Your task to perform on an android device: open wifi settings Image 0: 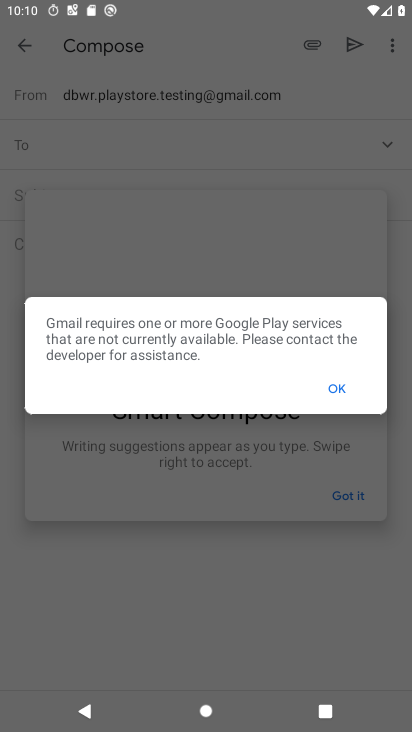
Step 0: press home button
Your task to perform on an android device: open wifi settings Image 1: 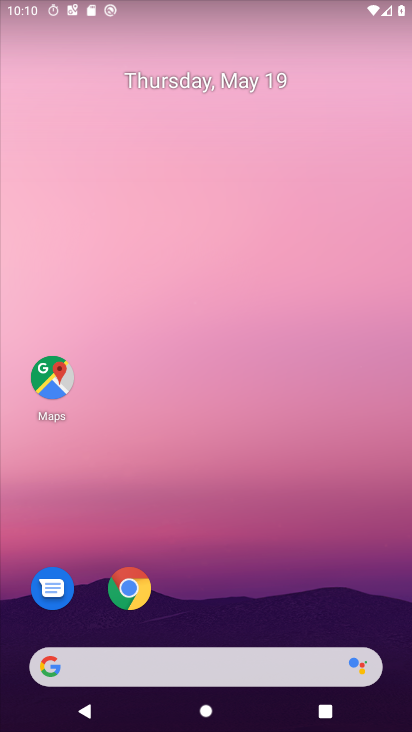
Step 1: drag from (119, 665) to (286, 74)
Your task to perform on an android device: open wifi settings Image 2: 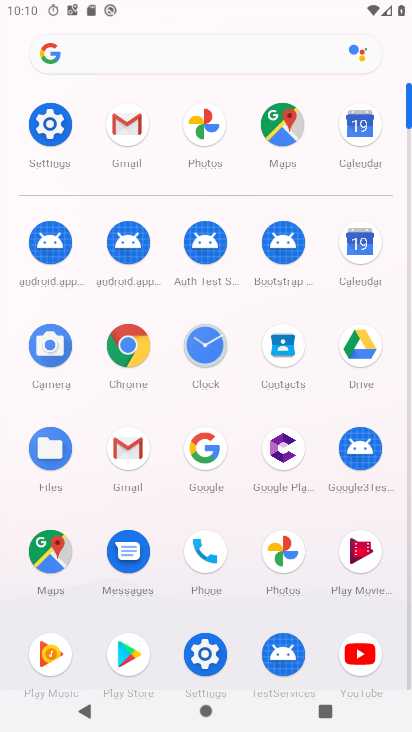
Step 2: click (45, 125)
Your task to perform on an android device: open wifi settings Image 3: 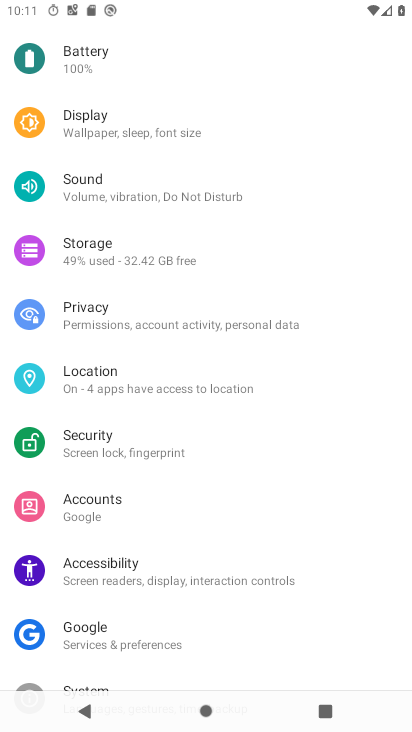
Step 3: drag from (265, 101) to (294, 478)
Your task to perform on an android device: open wifi settings Image 4: 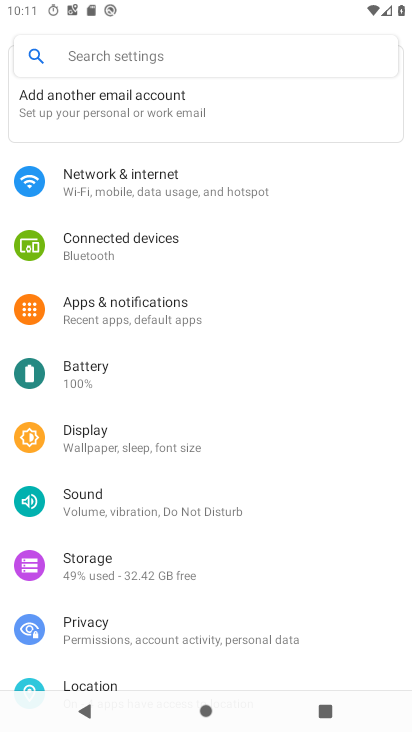
Step 4: click (137, 182)
Your task to perform on an android device: open wifi settings Image 5: 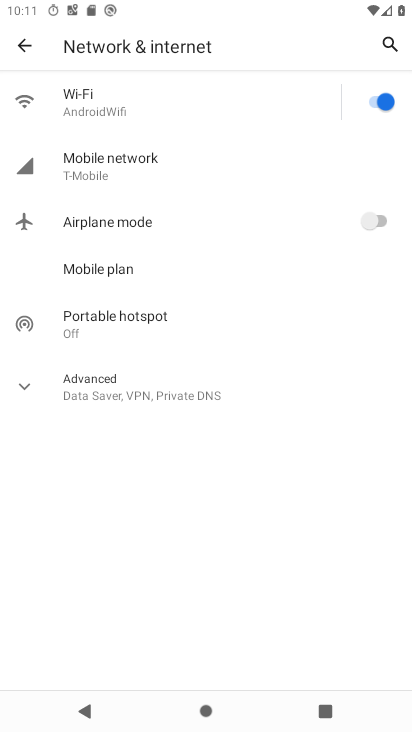
Step 5: click (115, 114)
Your task to perform on an android device: open wifi settings Image 6: 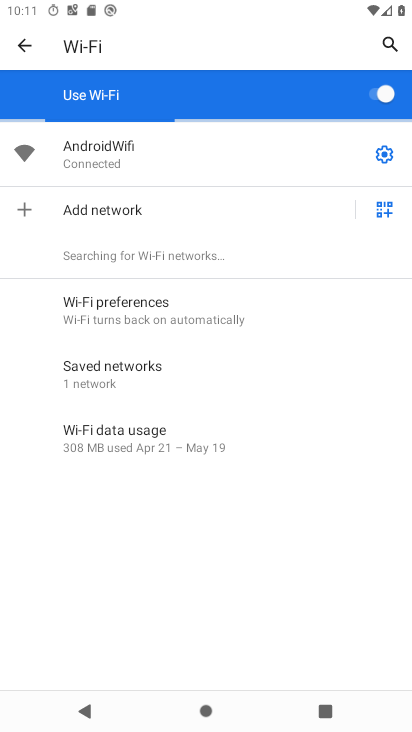
Step 6: task complete